Your task to perform on an android device: check data usage Image 0: 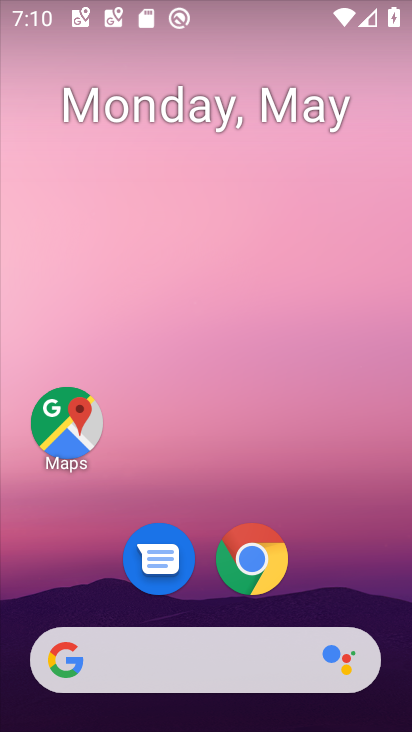
Step 0: drag from (380, 604) to (309, 98)
Your task to perform on an android device: check data usage Image 1: 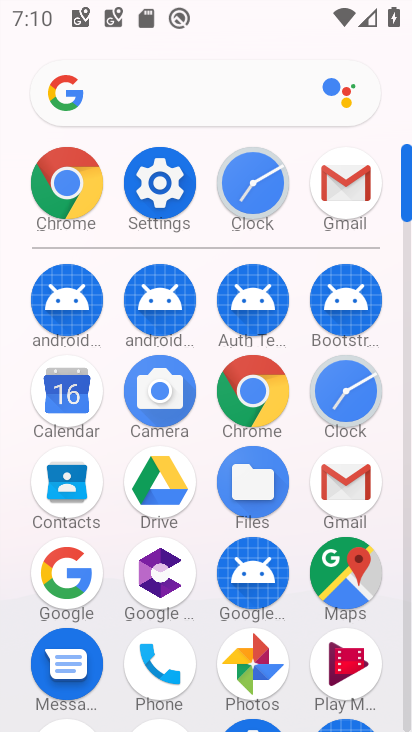
Step 1: click (164, 161)
Your task to perform on an android device: check data usage Image 2: 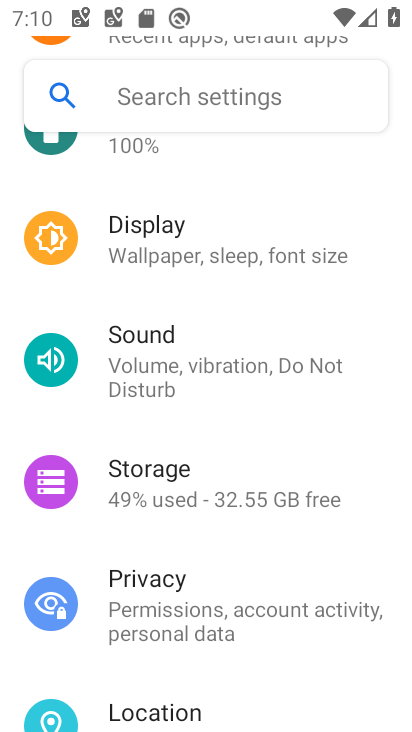
Step 2: drag from (219, 214) to (250, 723)
Your task to perform on an android device: check data usage Image 3: 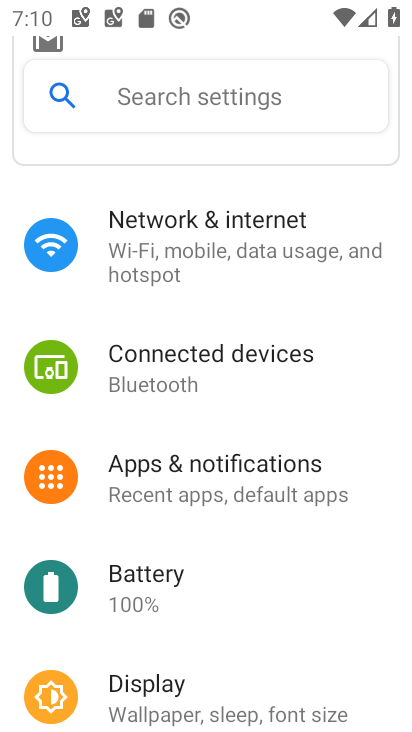
Step 3: click (228, 257)
Your task to perform on an android device: check data usage Image 4: 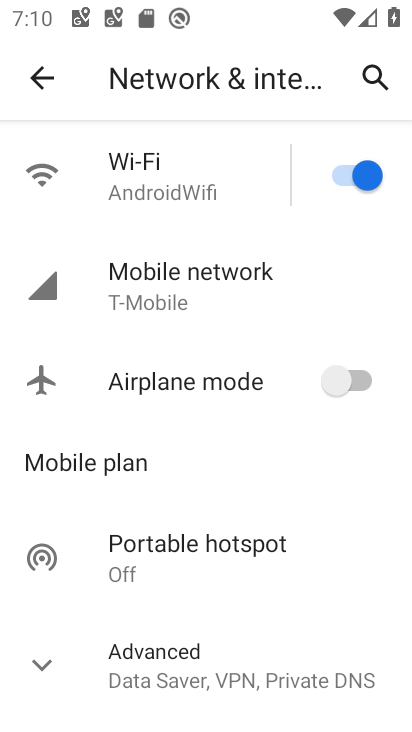
Step 4: click (146, 304)
Your task to perform on an android device: check data usage Image 5: 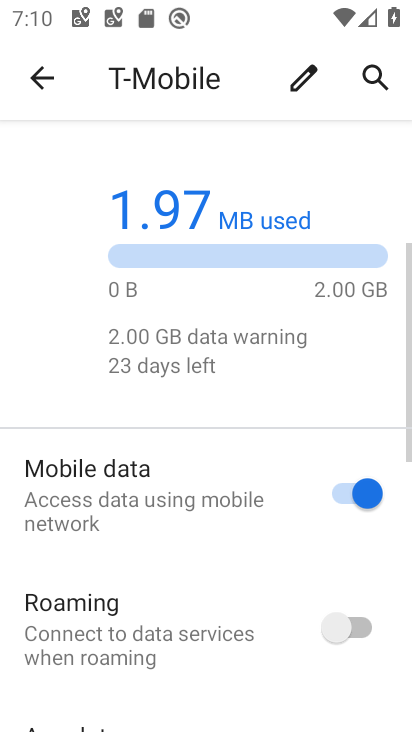
Step 5: drag from (92, 673) to (151, 163)
Your task to perform on an android device: check data usage Image 6: 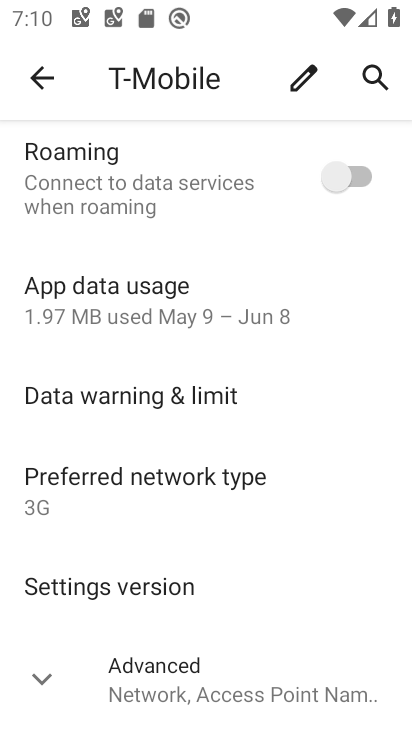
Step 6: click (164, 284)
Your task to perform on an android device: check data usage Image 7: 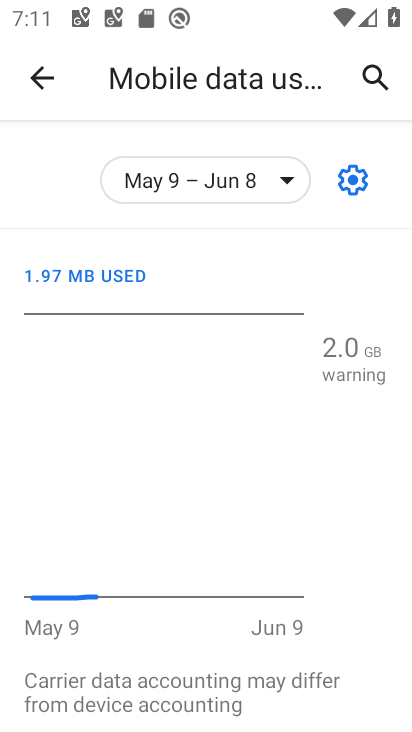
Step 7: task complete